Your task to perform on an android device: turn on wifi Image 0: 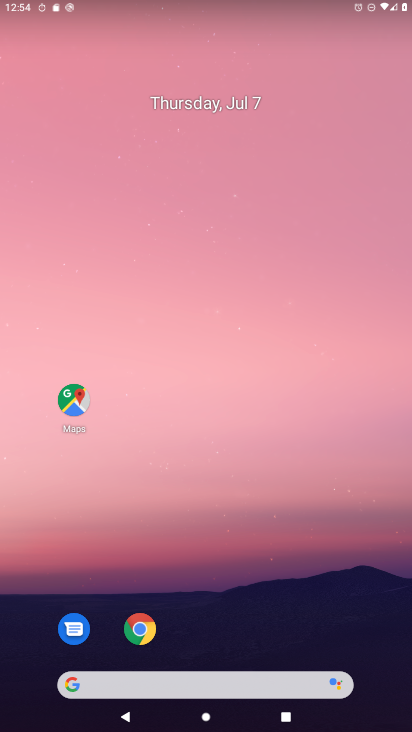
Step 0: drag from (202, 625) to (244, 185)
Your task to perform on an android device: turn on wifi Image 1: 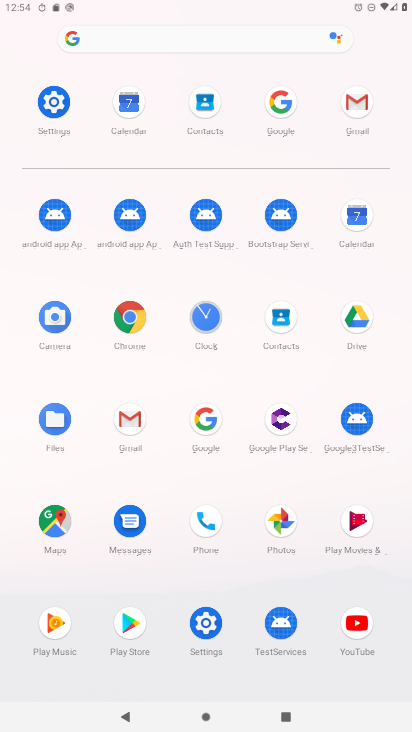
Step 1: click (73, 107)
Your task to perform on an android device: turn on wifi Image 2: 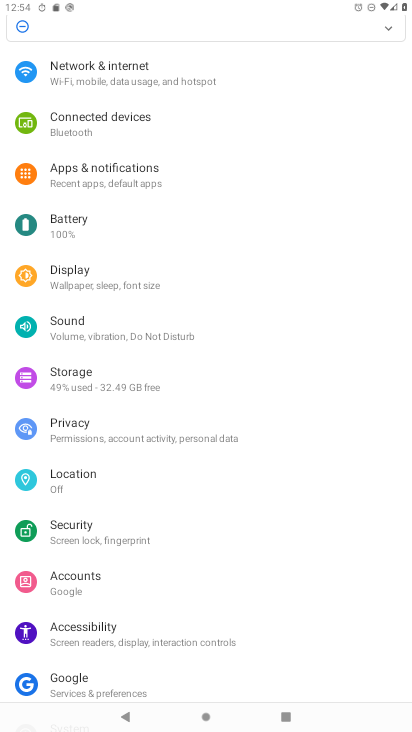
Step 2: click (117, 83)
Your task to perform on an android device: turn on wifi Image 3: 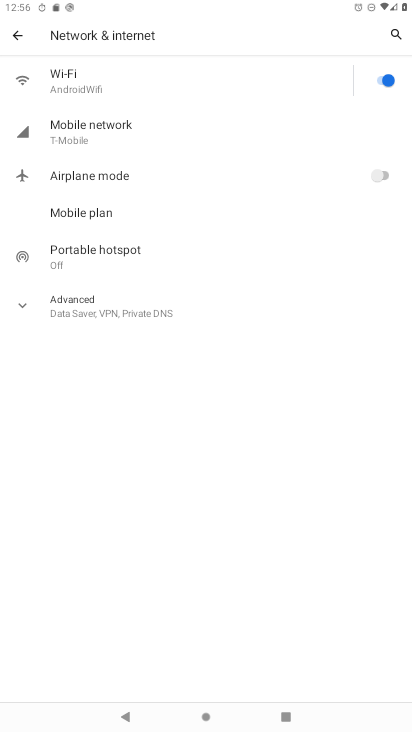
Step 3: task complete